Your task to perform on an android device: Go to network settings Image 0: 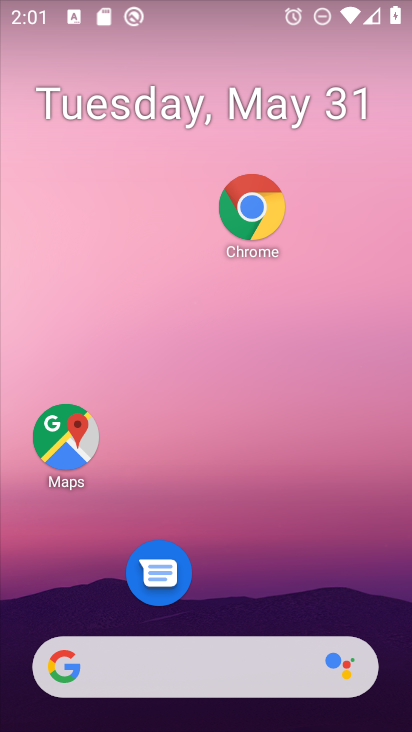
Step 0: drag from (218, 607) to (230, 155)
Your task to perform on an android device: Go to network settings Image 1: 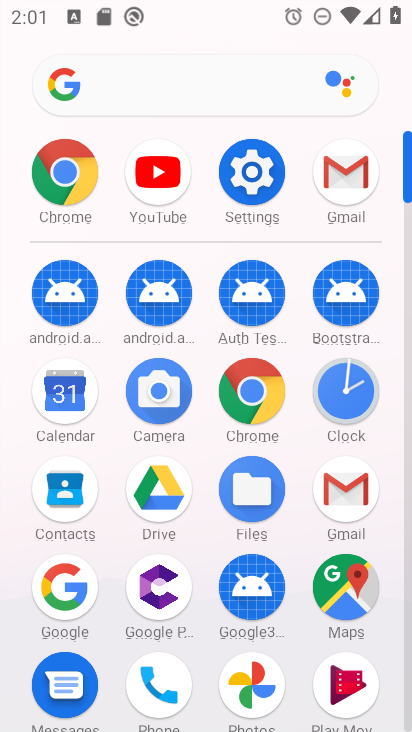
Step 1: click (262, 195)
Your task to perform on an android device: Go to network settings Image 2: 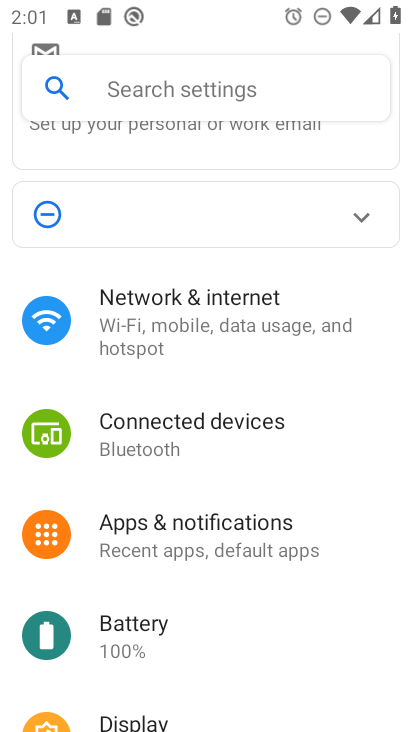
Step 2: click (257, 309)
Your task to perform on an android device: Go to network settings Image 3: 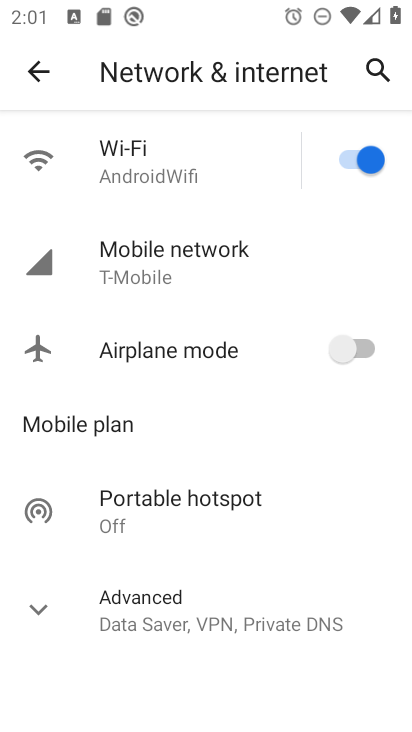
Step 3: click (184, 253)
Your task to perform on an android device: Go to network settings Image 4: 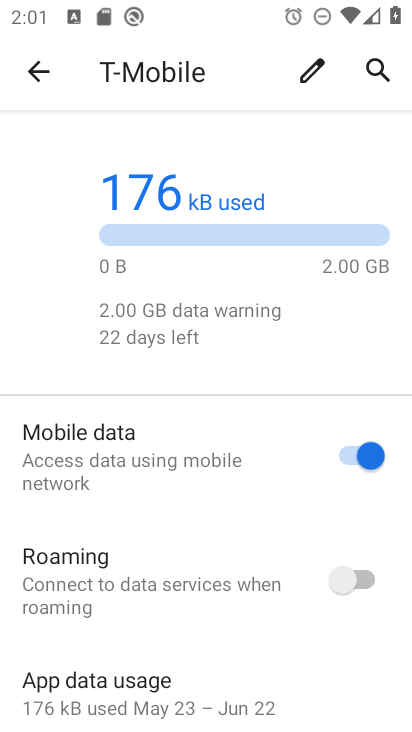
Step 4: task complete